Your task to perform on an android device: change the clock display to analog Image 0: 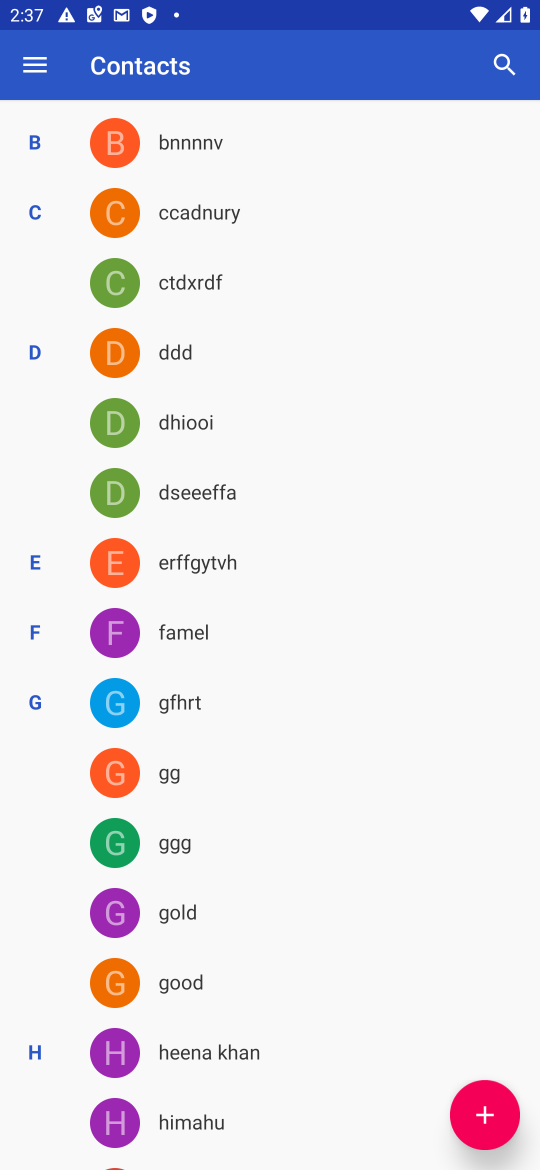
Step 0: press home button
Your task to perform on an android device: change the clock display to analog Image 1: 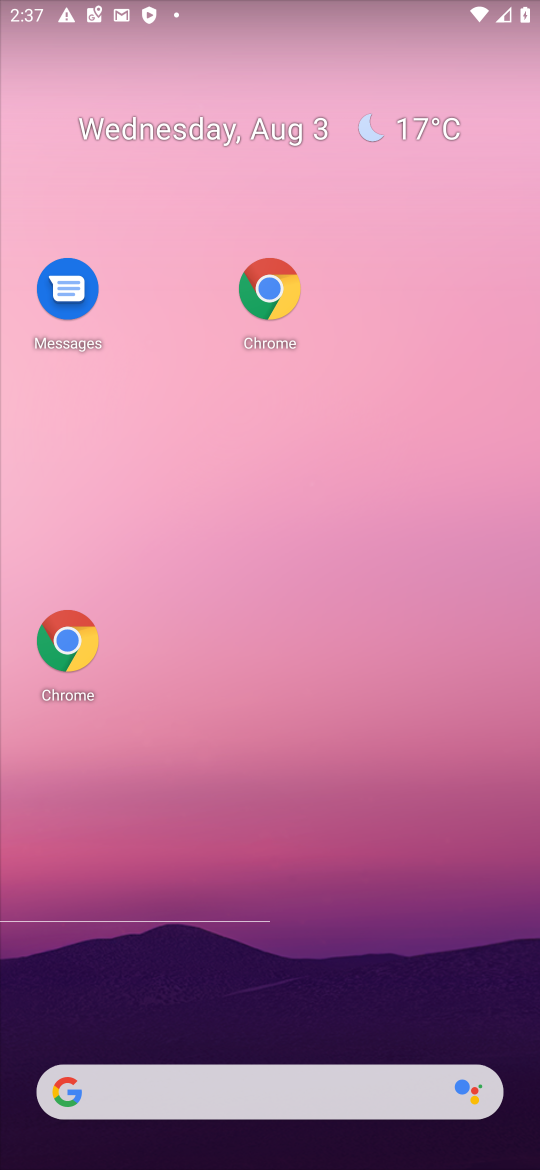
Step 1: drag from (310, 1003) to (343, 68)
Your task to perform on an android device: change the clock display to analog Image 2: 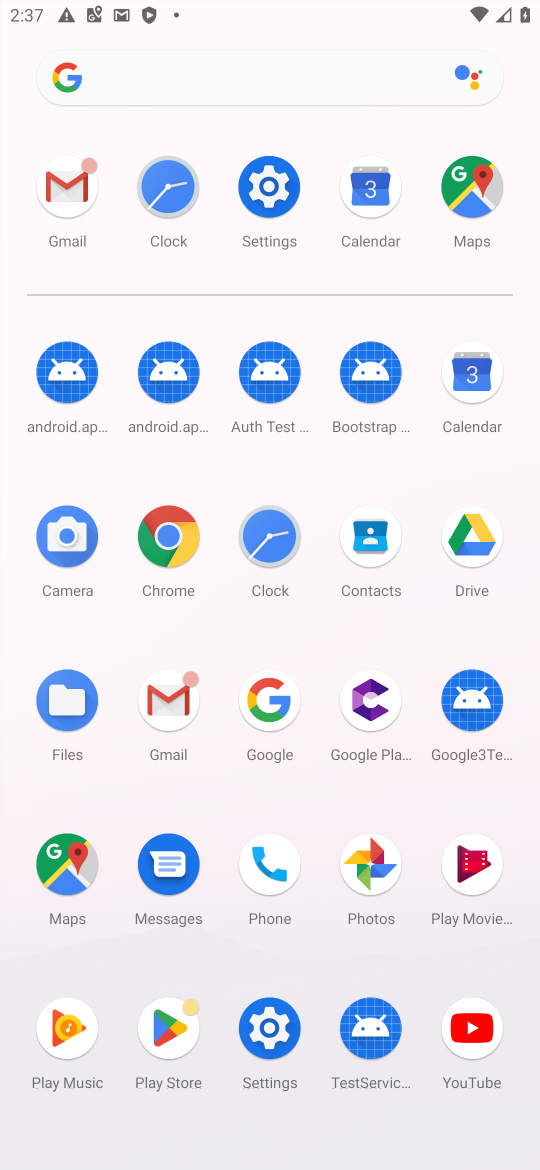
Step 2: click (171, 225)
Your task to perform on an android device: change the clock display to analog Image 3: 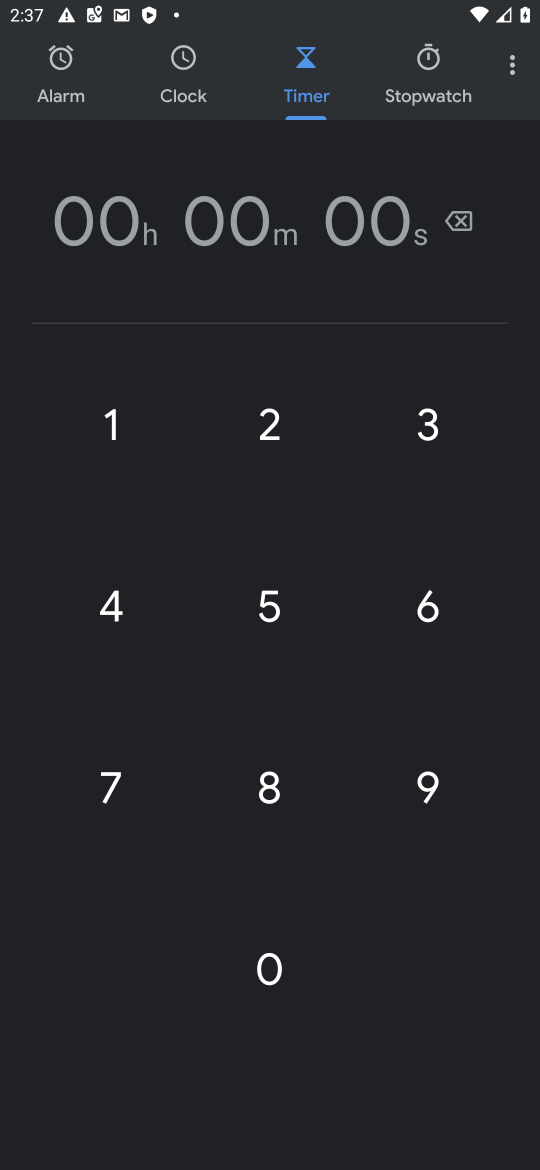
Step 3: task complete